Your task to perform on an android device: Check the news Image 0: 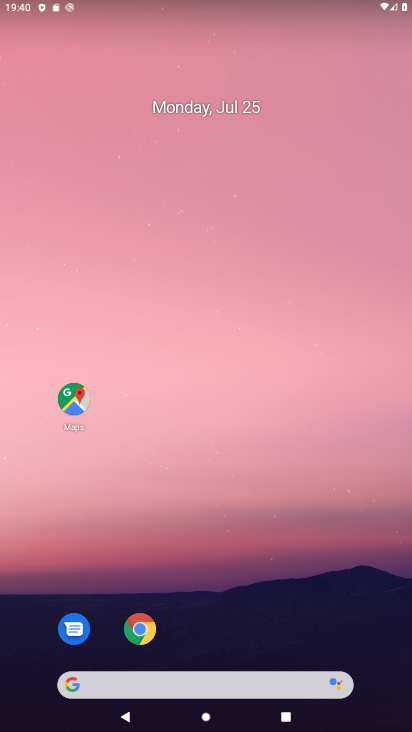
Step 0: click (124, 668)
Your task to perform on an android device: Check the news Image 1: 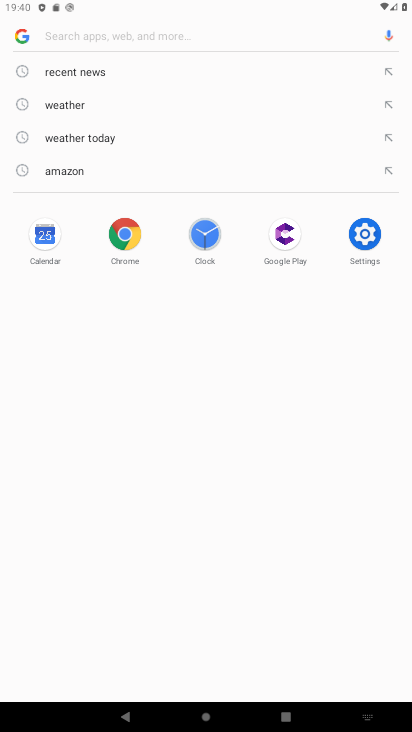
Step 1: type "news"
Your task to perform on an android device: Check the news Image 2: 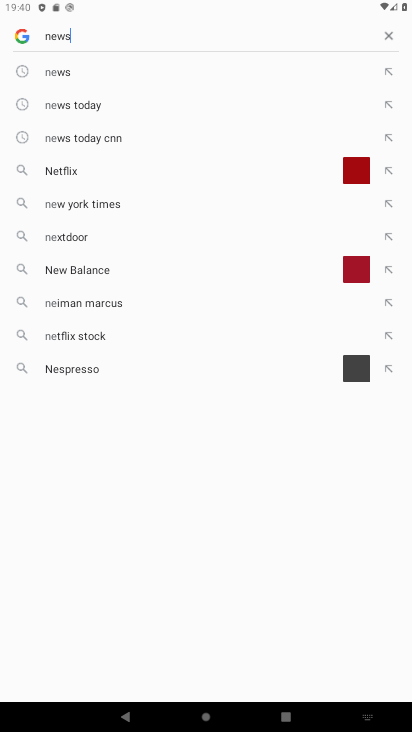
Step 2: type ""
Your task to perform on an android device: Check the news Image 3: 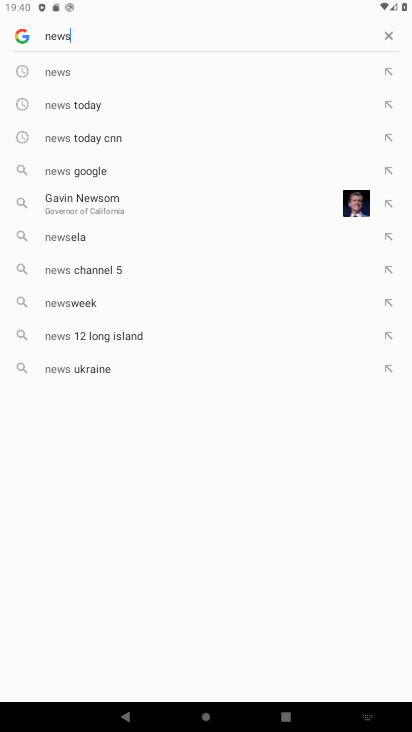
Step 3: click (46, 72)
Your task to perform on an android device: Check the news Image 4: 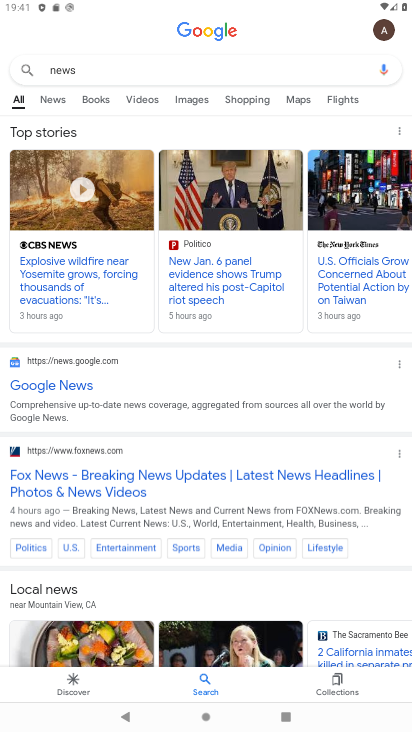
Step 4: task complete